Your task to perform on an android device: Check the news Image 0: 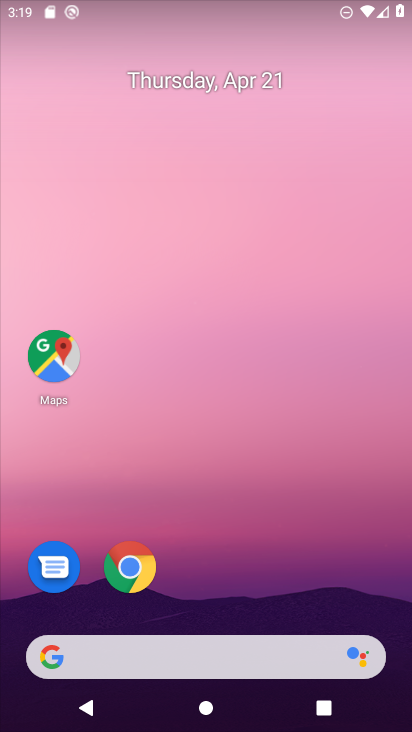
Step 0: drag from (217, 624) to (251, 104)
Your task to perform on an android device: Check the news Image 1: 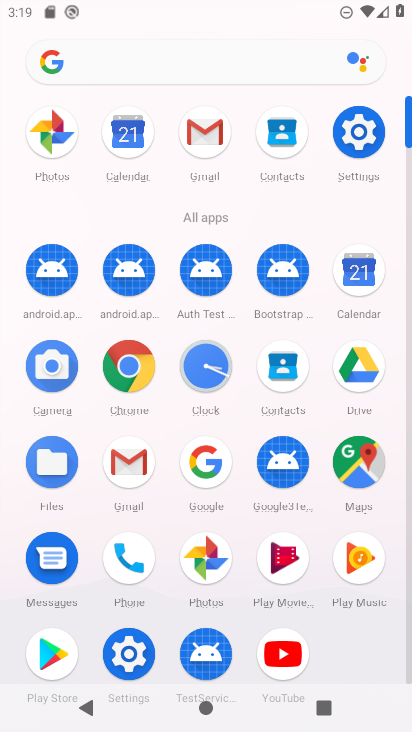
Step 1: click (115, 349)
Your task to perform on an android device: Check the news Image 2: 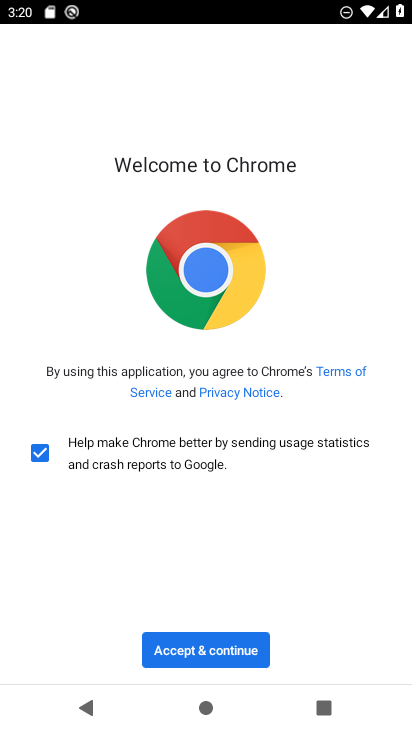
Step 2: click (219, 657)
Your task to perform on an android device: Check the news Image 3: 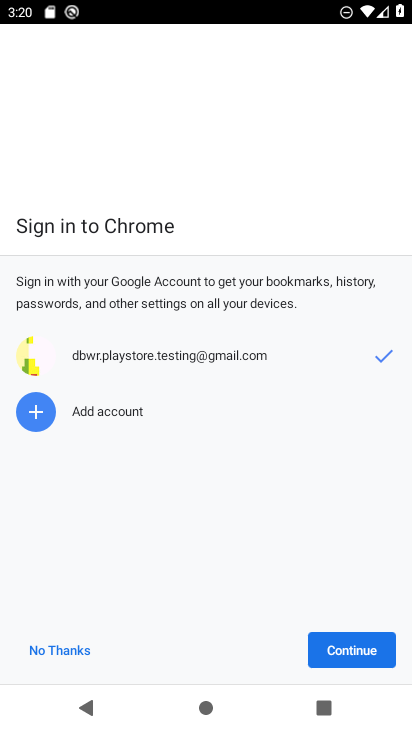
Step 3: click (77, 649)
Your task to perform on an android device: Check the news Image 4: 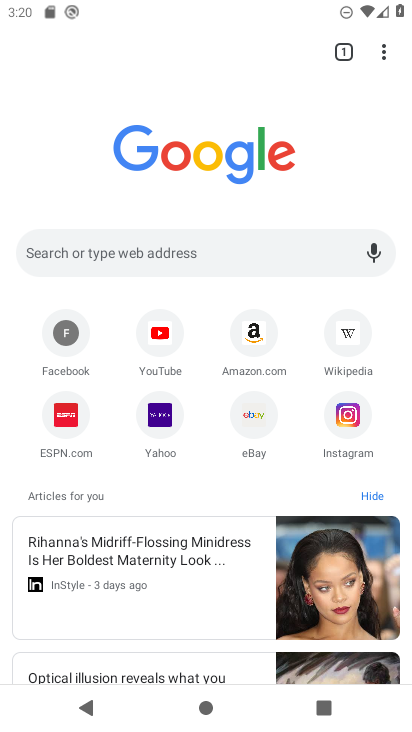
Step 4: click (255, 257)
Your task to perform on an android device: Check the news Image 5: 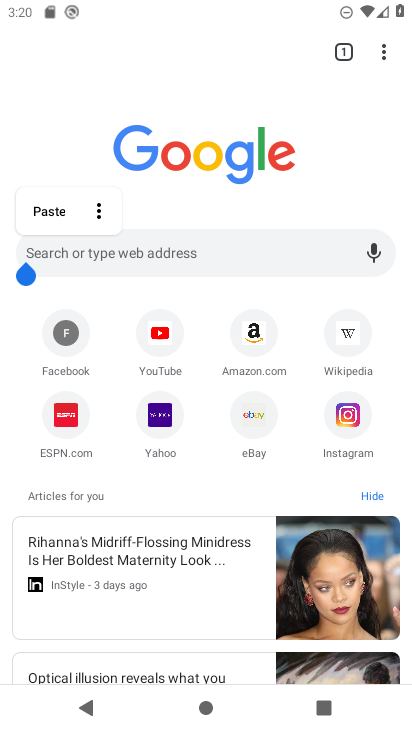
Step 5: click (255, 257)
Your task to perform on an android device: Check the news Image 6: 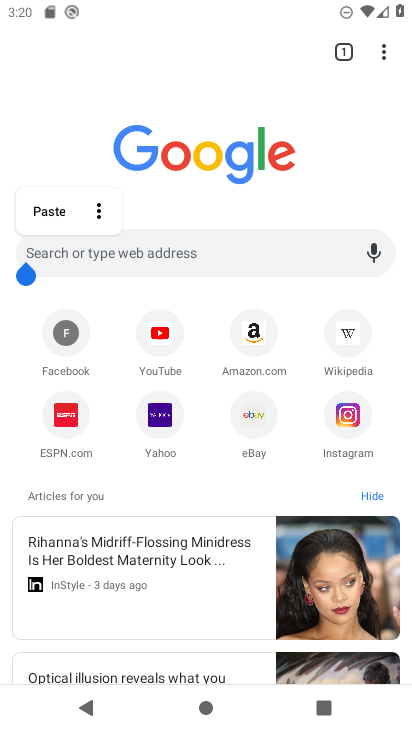
Step 6: click (255, 257)
Your task to perform on an android device: Check the news Image 7: 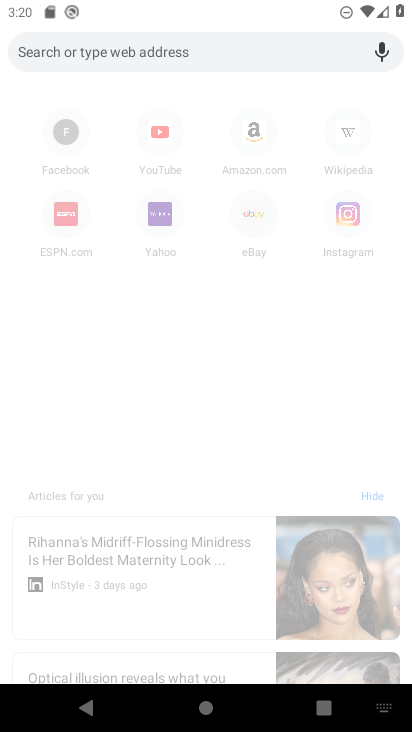
Step 7: click (255, 257)
Your task to perform on an android device: Check the news Image 8: 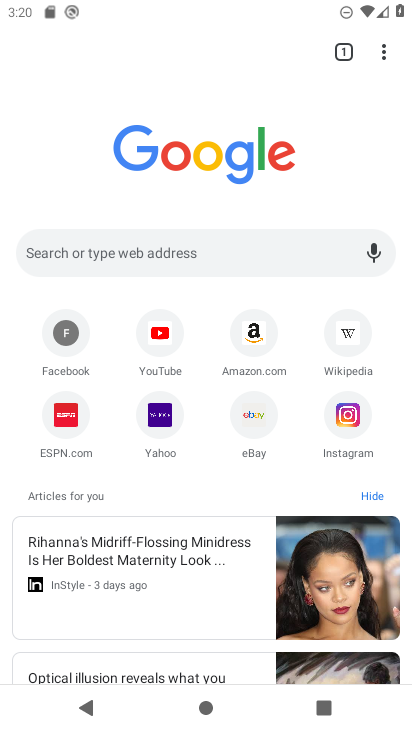
Step 8: click (314, 246)
Your task to perform on an android device: Check the news Image 9: 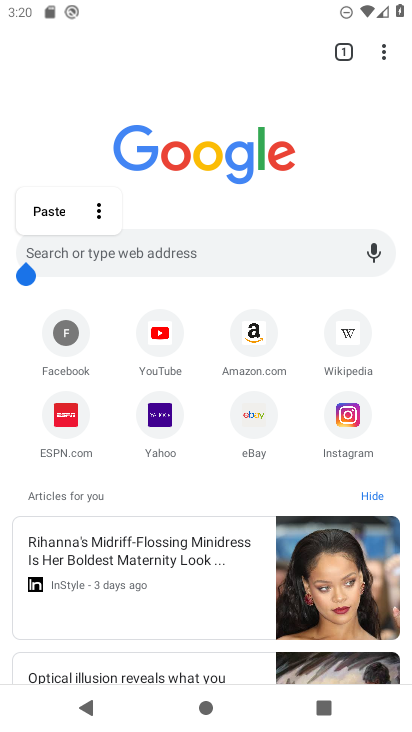
Step 9: click (314, 246)
Your task to perform on an android device: Check the news Image 10: 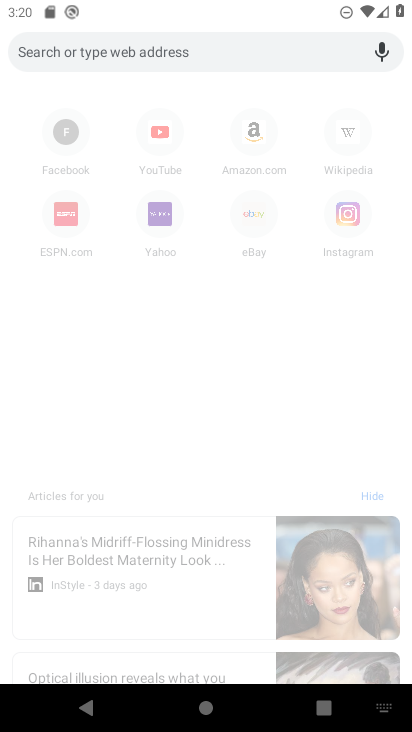
Step 10: type "news"
Your task to perform on an android device: Check the news Image 11: 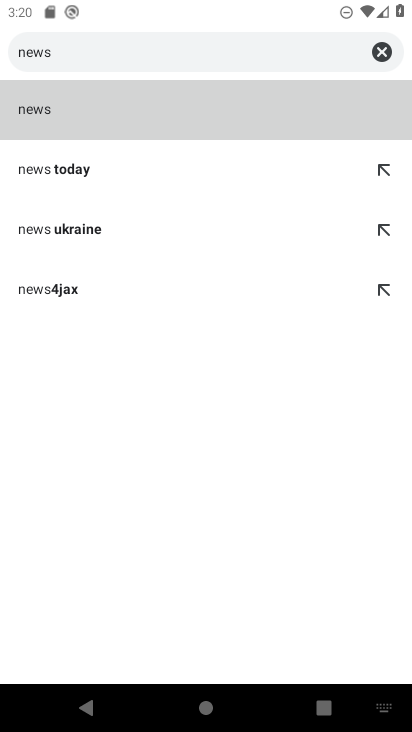
Step 11: click (288, 98)
Your task to perform on an android device: Check the news Image 12: 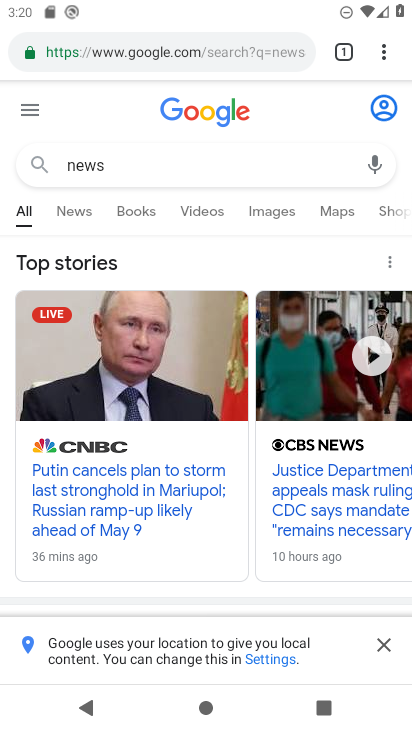
Step 12: task complete